Your task to perform on an android device: clear history in the chrome app Image 0: 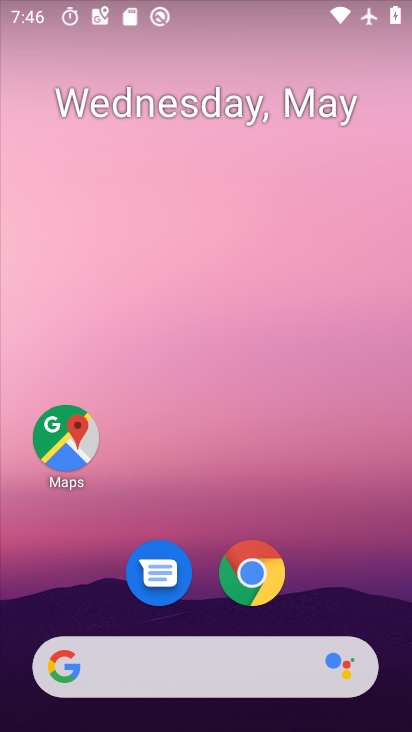
Step 0: click (250, 563)
Your task to perform on an android device: clear history in the chrome app Image 1: 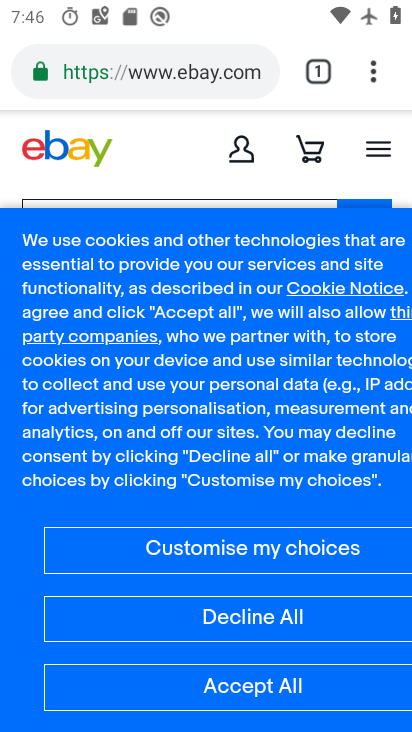
Step 1: click (362, 78)
Your task to perform on an android device: clear history in the chrome app Image 2: 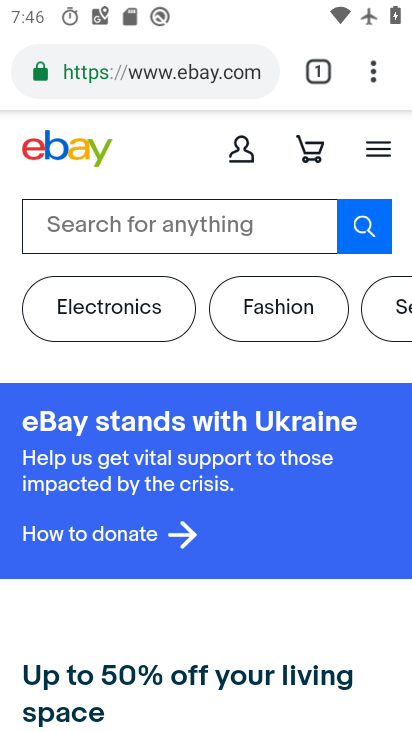
Step 2: click (370, 79)
Your task to perform on an android device: clear history in the chrome app Image 3: 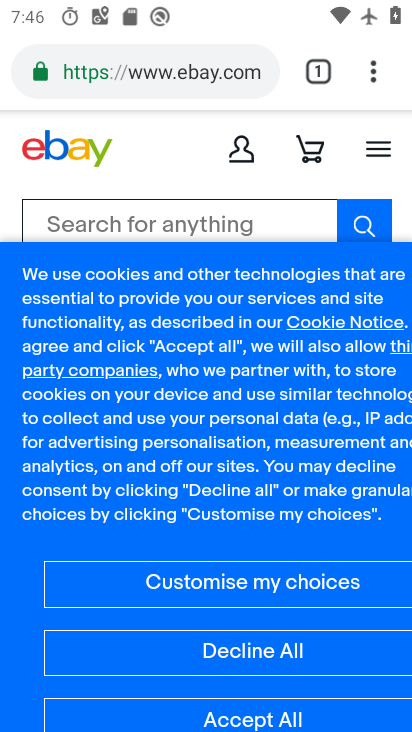
Step 3: click (401, 95)
Your task to perform on an android device: clear history in the chrome app Image 4: 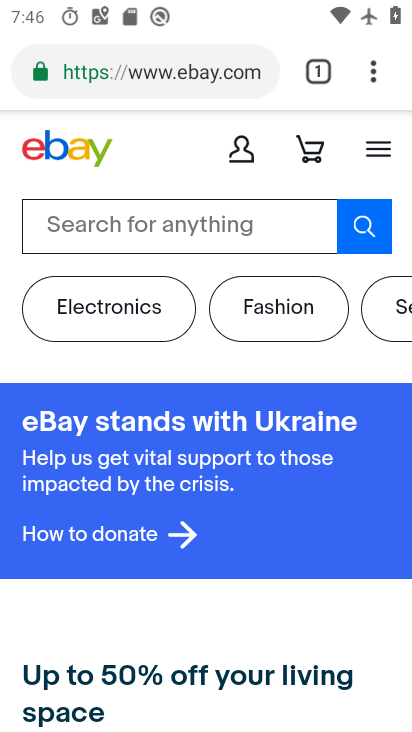
Step 4: click (407, 105)
Your task to perform on an android device: clear history in the chrome app Image 5: 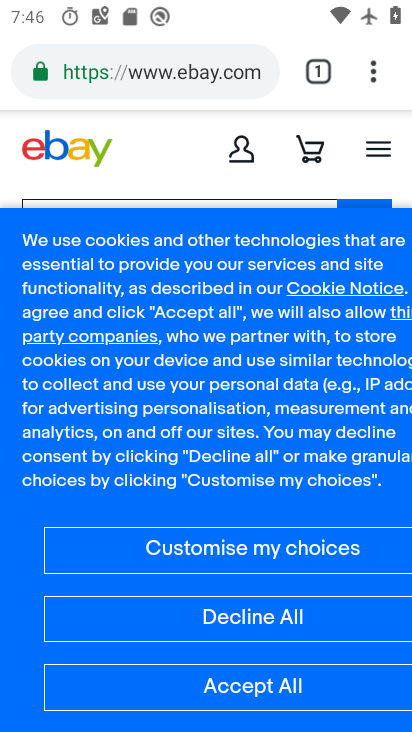
Step 5: click (366, 98)
Your task to perform on an android device: clear history in the chrome app Image 6: 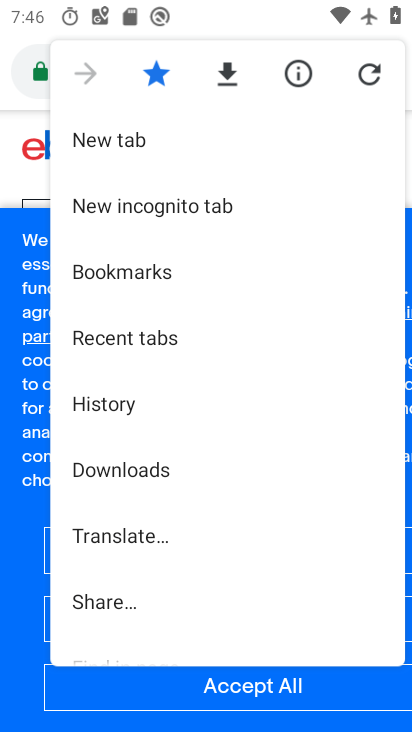
Step 6: click (126, 398)
Your task to perform on an android device: clear history in the chrome app Image 7: 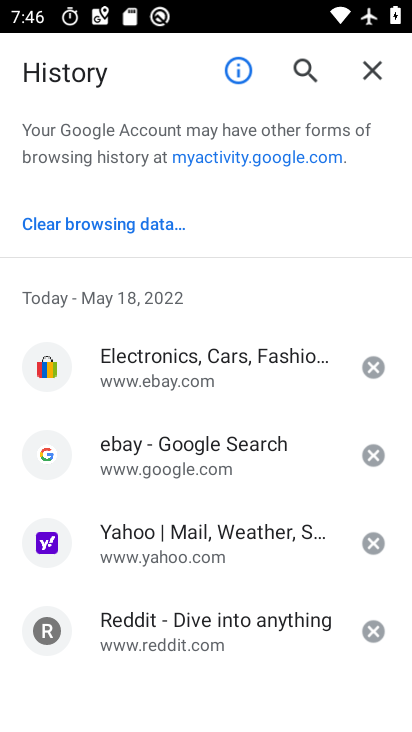
Step 7: click (109, 221)
Your task to perform on an android device: clear history in the chrome app Image 8: 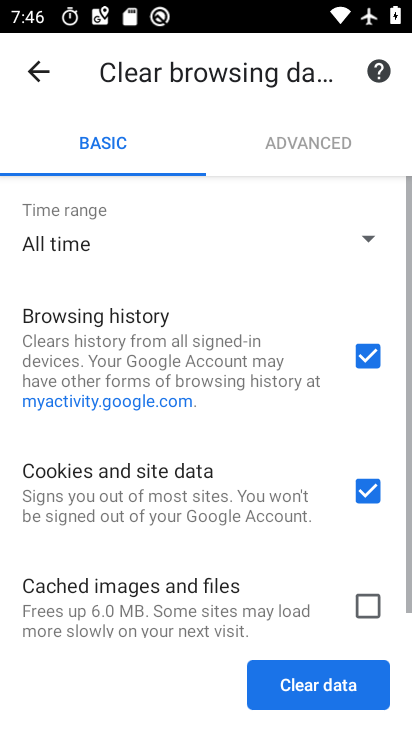
Step 8: click (351, 604)
Your task to perform on an android device: clear history in the chrome app Image 9: 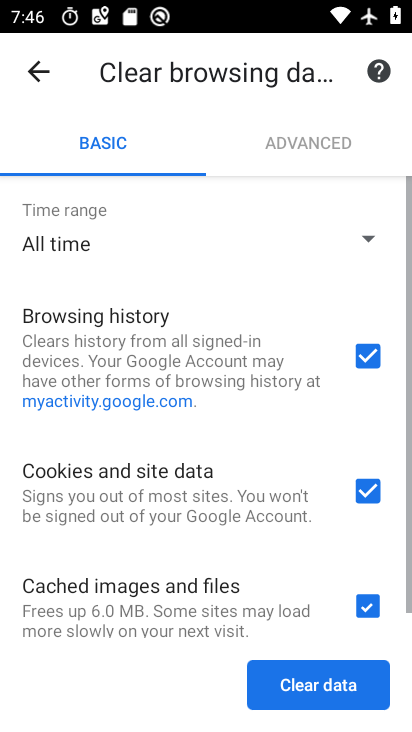
Step 9: click (316, 684)
Your task to perform on an android device: clear history in the chrome app Image 10: 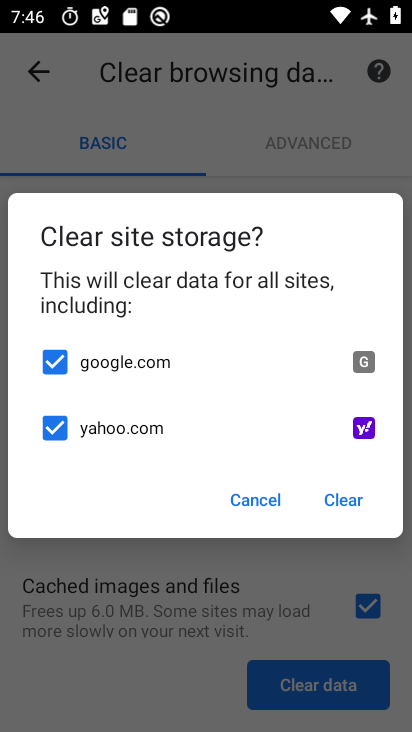
Step 10: click (350, 489)
Your task to perform on an android device: clear history in the chrome app Image 11: 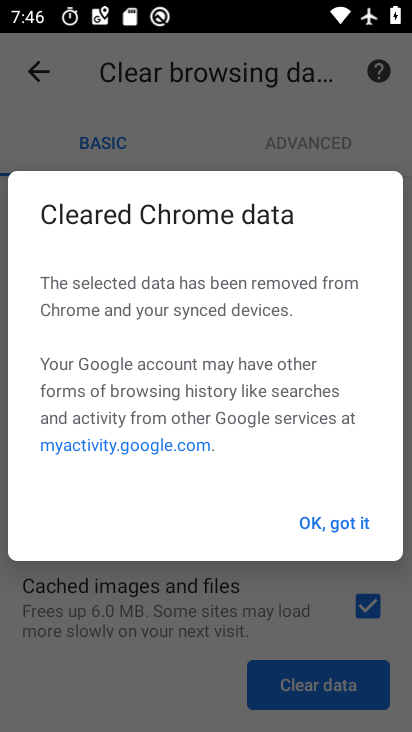
Step 11: click (328, 517)
Your task to perform on an android device: clear history in the chrome app Image 12: 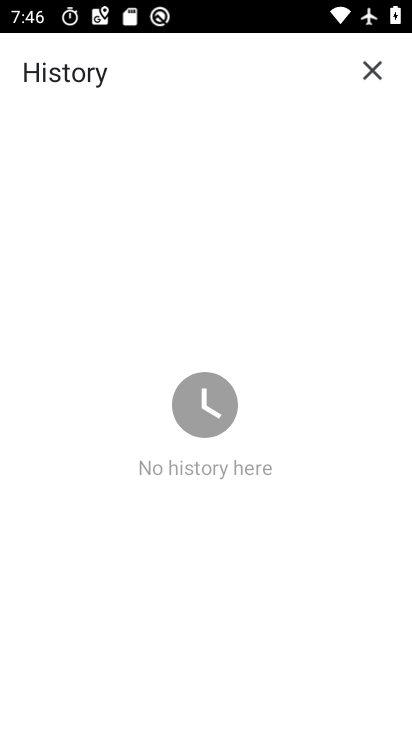
Step 12: task complete